Your task to perform on an android device: Show me the alarms in the clock app Image 0: 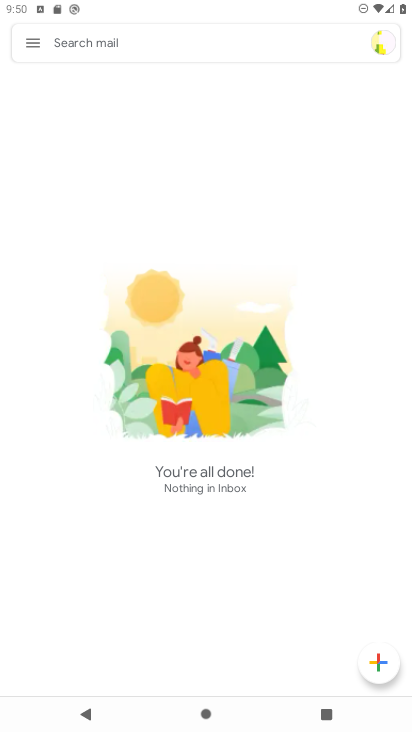
Step 0: press home button
Your task to perform on an android device: Show me the alarms in the clock app Image 1: 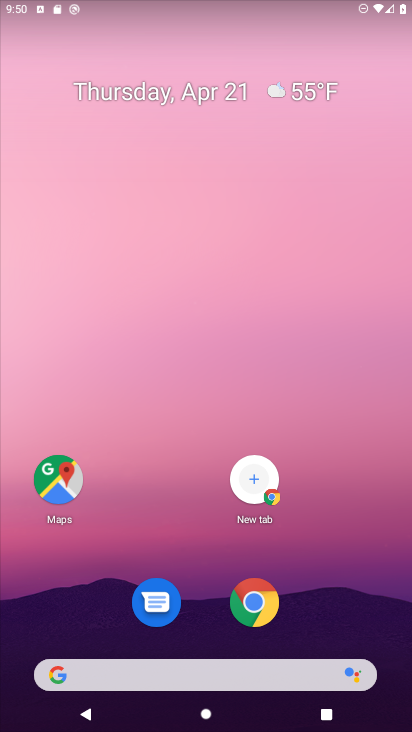
Step 1: press home button
Your task to perform on an android device: Show me the alarms in the clock app Image 2: 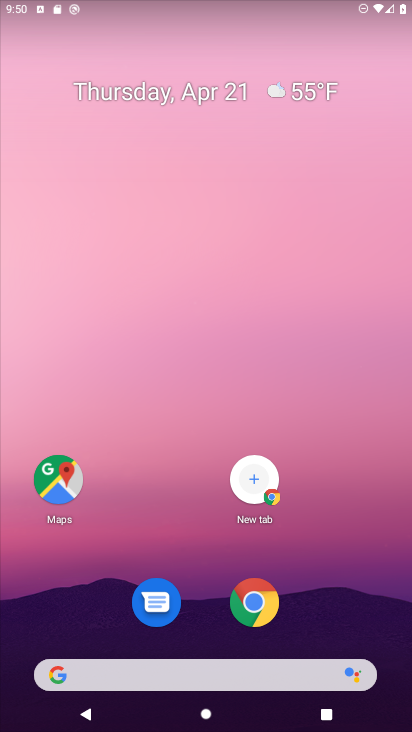
Step 2: press home button
Your task to perform on an android device: Show me the alarms in the clock app Image 3: 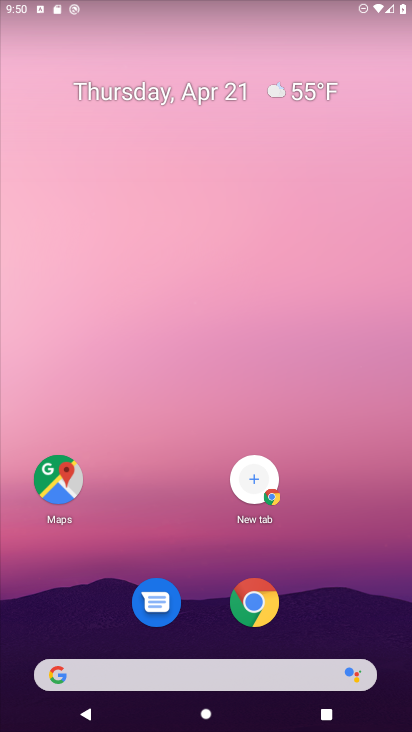
Step 3: drag from (192, 639) to (230, 176)
Your task to perform on an android device: Show me the alarms in the clock app Image 4: 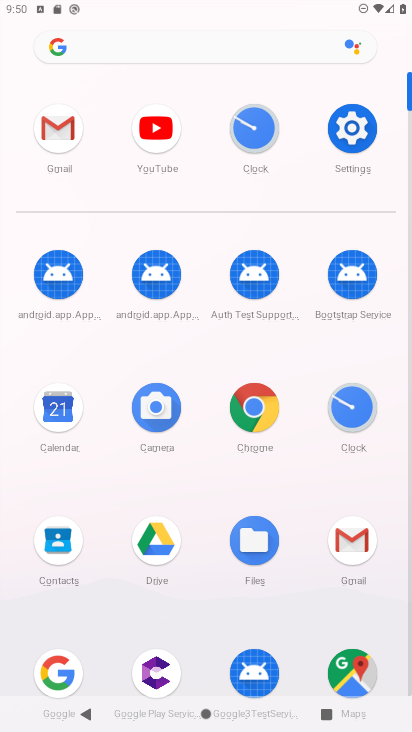
Step 4: click (259, 114)
Your task to perform on an android device: Show me the alarms in the clock app Image 5: 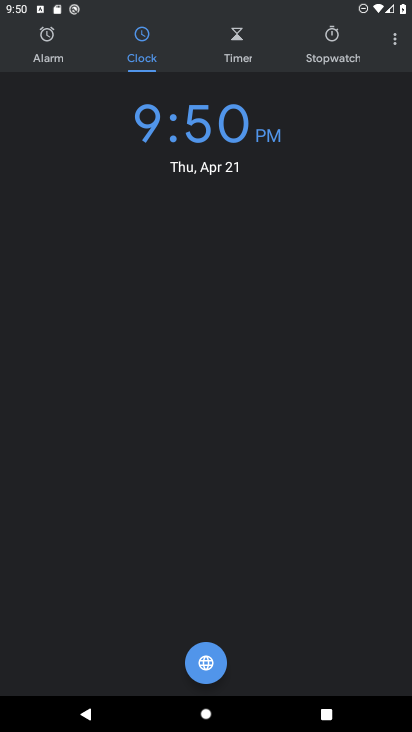
Step 5: click (52, 37)
Your task to perform on an android device: Show me the alarms in the clock app Image 6: 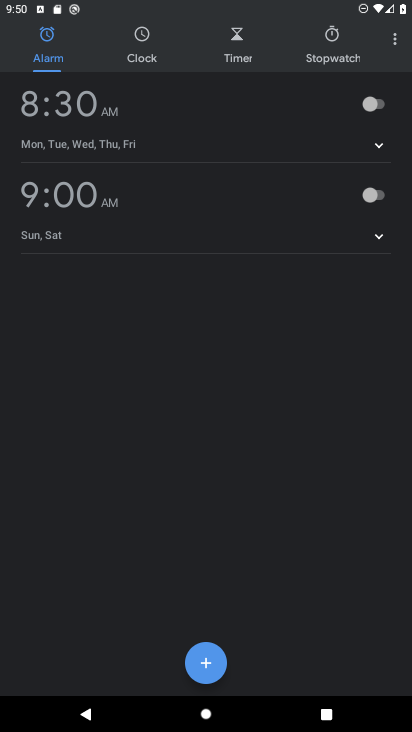
Step 6: task complete